Your task to perform on an android device: toggle airplane mode Image 0: 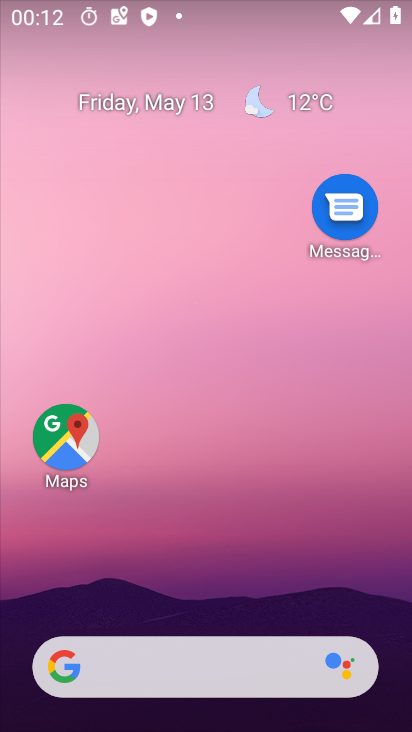
Step 0: press home button
Your task to perform on an android device: toggle airplane mode Image 1: 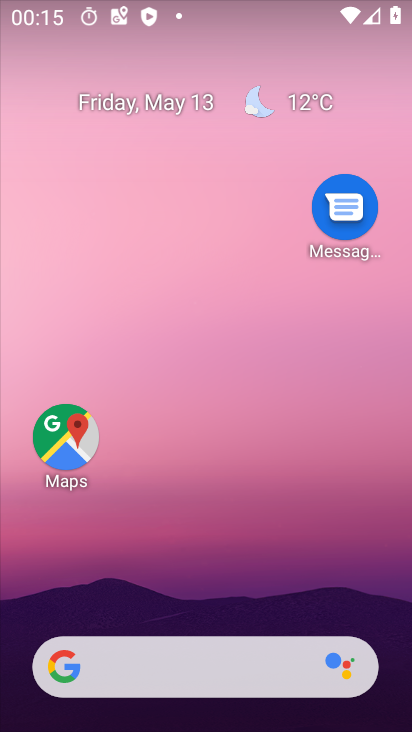
Step 1: drag from (209, 7) to (202, 221)
Your task to perform on an android device: toggle airplane mode Image 2: 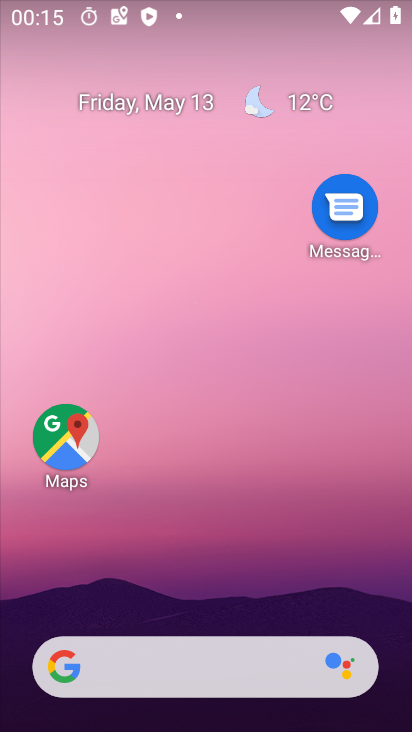
Step 2: drag from (244, 0) to (363, 657)
Your task to perform on an android device: toggle airplane mode Image 3: 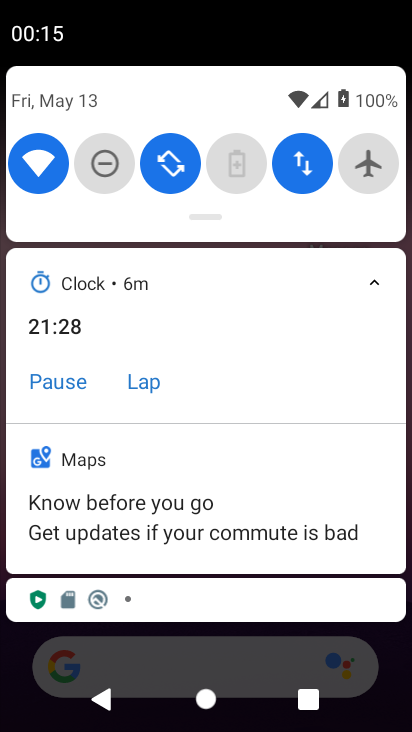
Step 3: click (365, 176)
Your task to perform on an android device: toggle airplane mode Image 4: 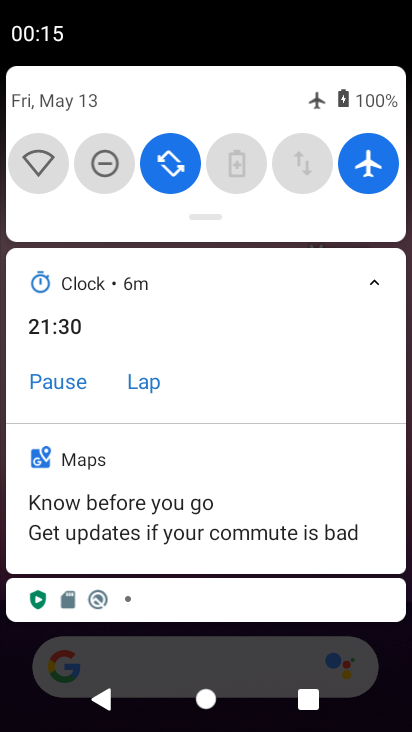
Step 4: task complete